Your task to perform on an android device: Open privacy settings Image 0: 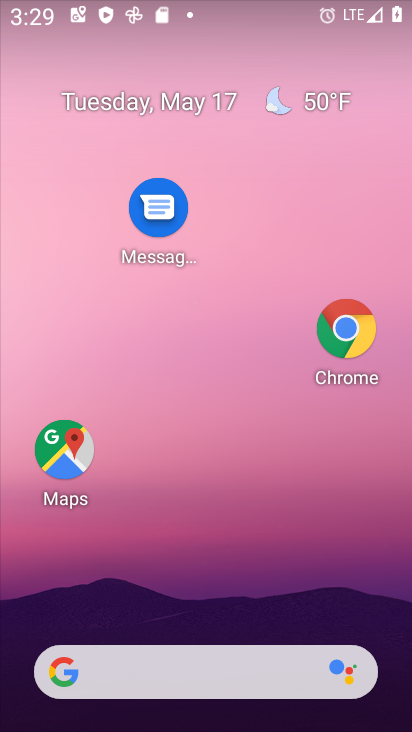
Step 0: drag from (195, 601) to (229, 134)
Your task to perform on an android device: Open privacy settings Image 1: 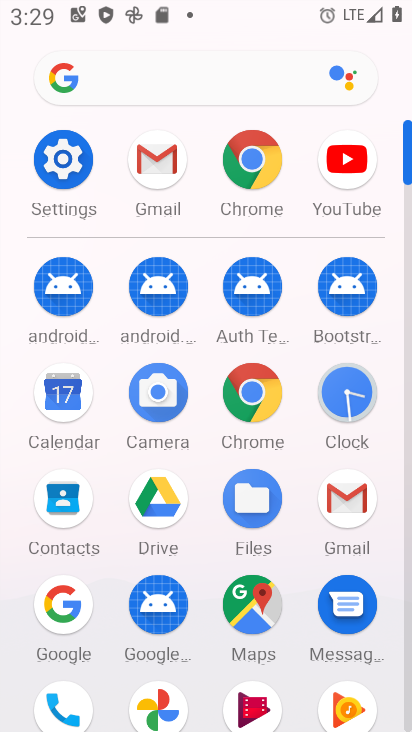
Step 1: click (49, 181)
Your task to perform on an android device: Open privacy settings Image 2: 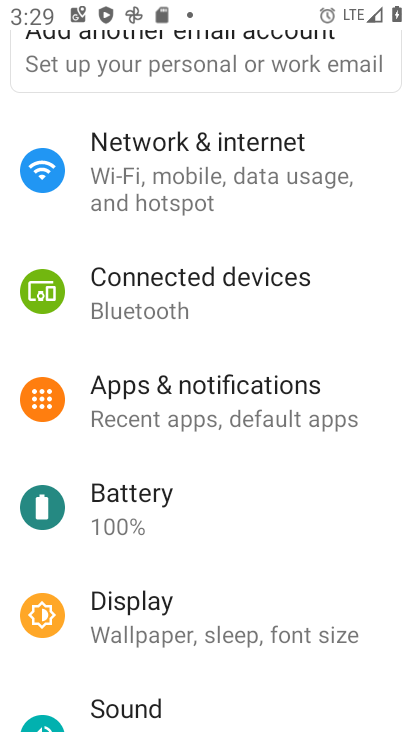
Step 2: drag from (186, 579) to (259, 198)
Your task to perform on an android device: Open privacy settings Image 3: 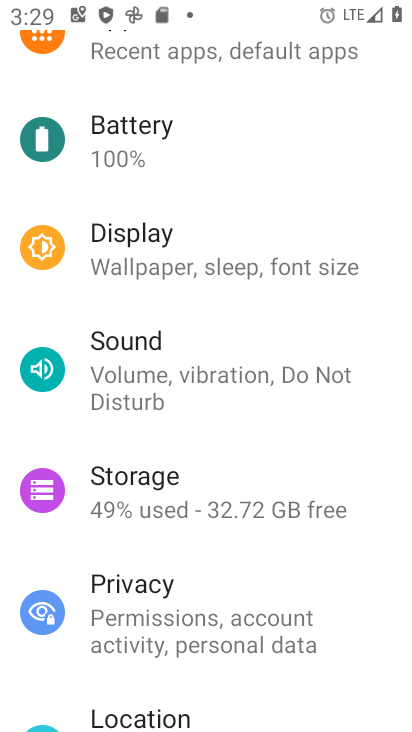
Step 3: click (235, 630)
Your task to perform on an android device: Open privacy settings Image 4: 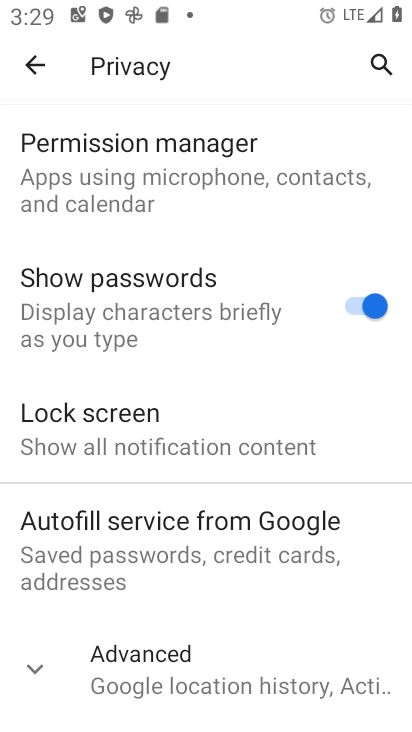
Step 4: task complete